Your task to perform on an android device: Open settings Image 0: 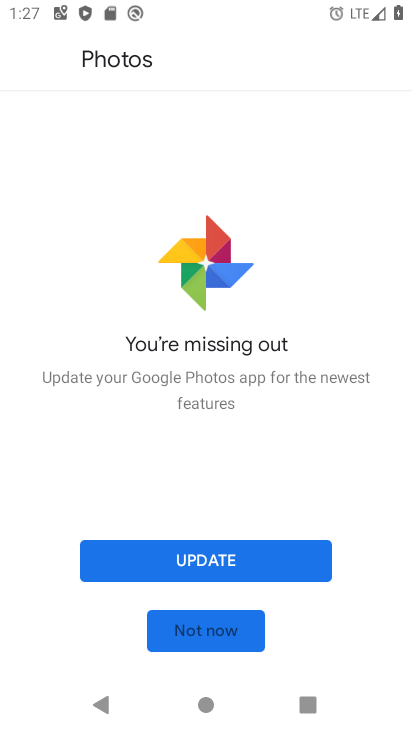
Step 0: press home button
Your task to perform on an android device: Open settings Image 1: 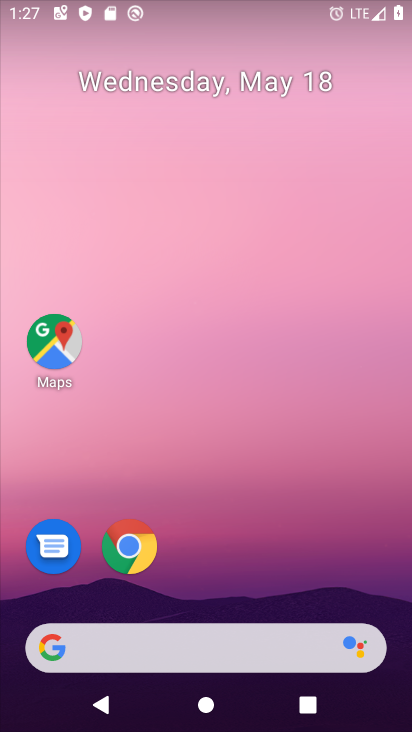
Step 1: drag from (359, 692) to (9, 272)
Your task to perform on an android device: Open settings Image 2: 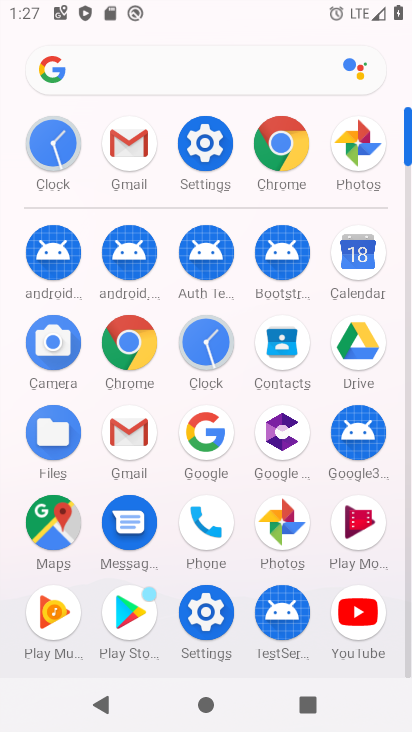
Step 2: click (210, 254)
Your task to perform on an android device: Open settings Image 3: 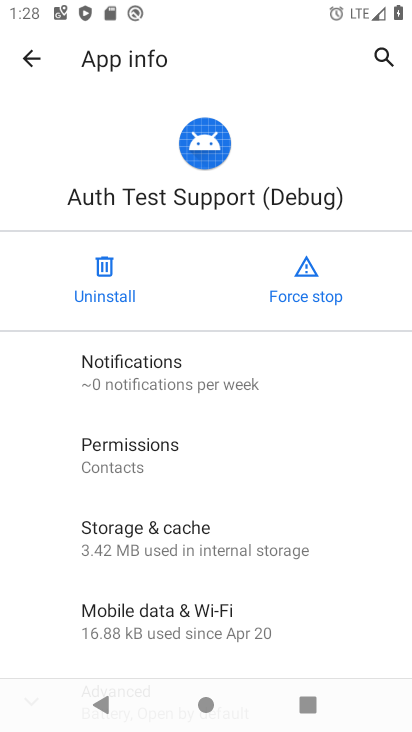
Step 3: task complete